Your task to perform on an android device: turn on improve location accuracy Image 0: 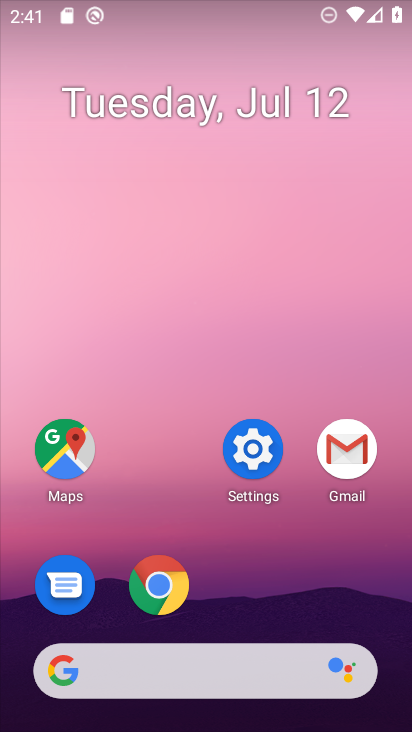
Step 0: click (246, 465)
Your task to perform on an android device: turn on improve location accuracy Image 1: 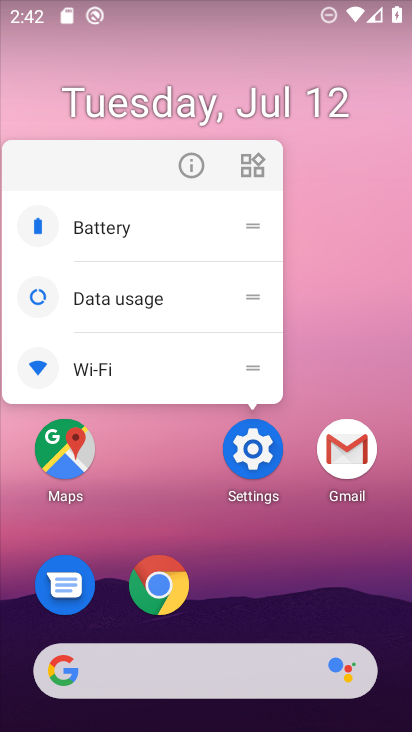
Step 1: click (245, 467)
Your task to perform on an android device: turn on improve location accuracy Image 2: 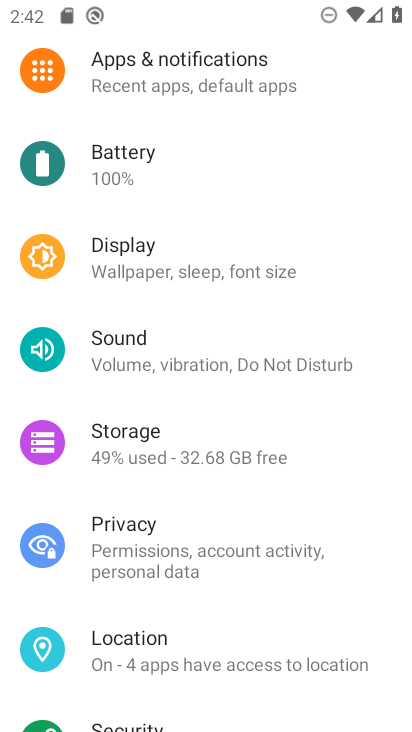
Step 2: drag from (232, 660) to (191, 285)
Your task to perform on an android device: turn on improve location accuracy Image 3: 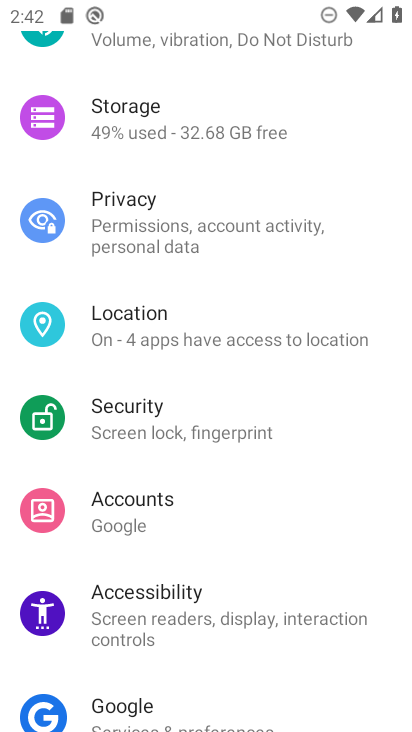
Step 3: click (100, 330)
Your task to perform on an android device: turn on improve location accuracy Image 4: 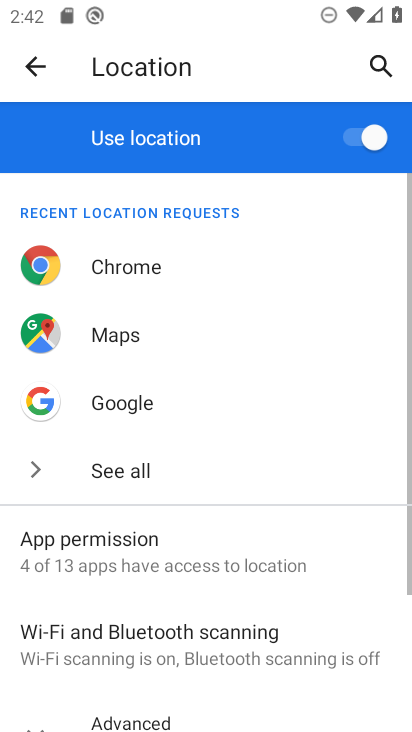
Step 4: drag from (184, 694) to (173, 361)
Your task to perform on an android device: turn on improve location accuracy Image 5: 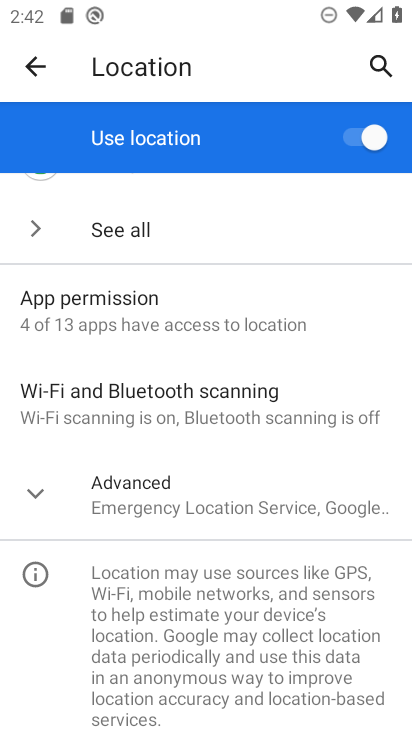
Step 5: click (34, 492)
Your task to perform on an android device: turn on improve location accuracy Image 6: 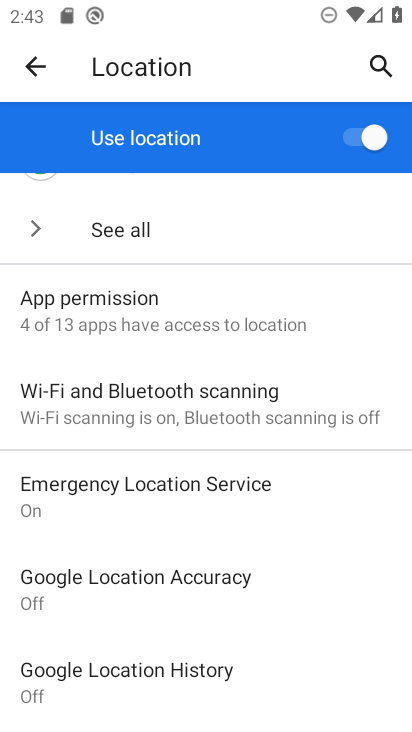
Step 6: click (133, 582)
Your task to perform on an android device: turn on improve location accuracy Image 7: 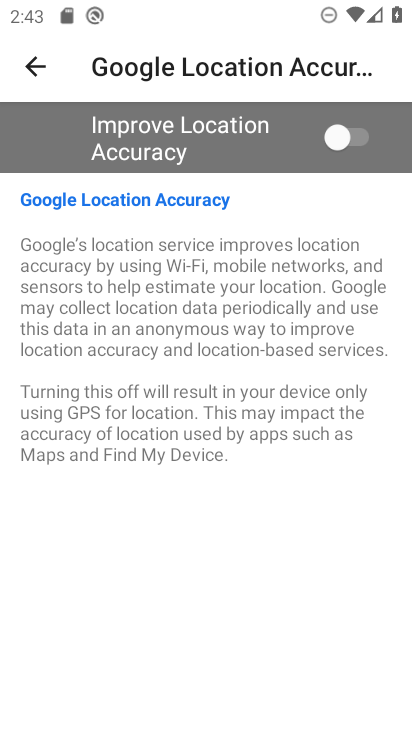
Step 7: click (350, 137)
Your task to perform on an android device: turn on improve location accuracy Image 8: 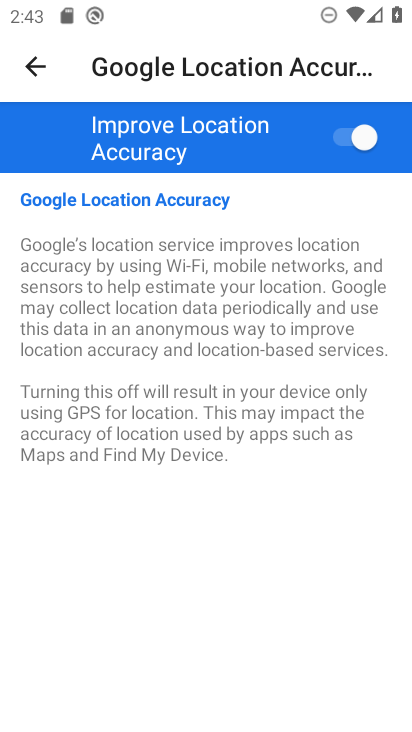
Step 8: task complete